Your task to perform on an android device: turn on the 24-hour format for clock Image 0: 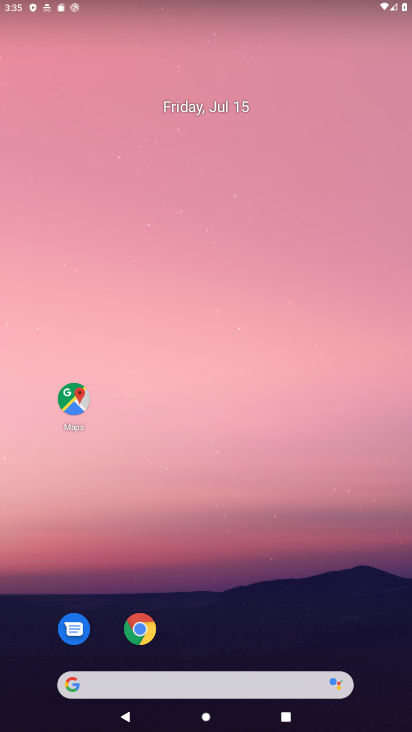
Step 0: drag from (238, 575) to (305, 213)
Your task to perform on an android device: turn on the 24-hour format for clock Image 1: 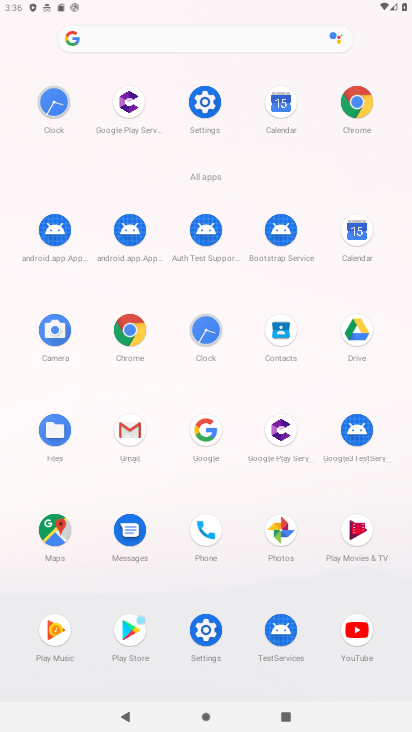
Step 1: click (208, 325)
Your task to perform on an android device: turn on the 24-hour format for clock Image 2: 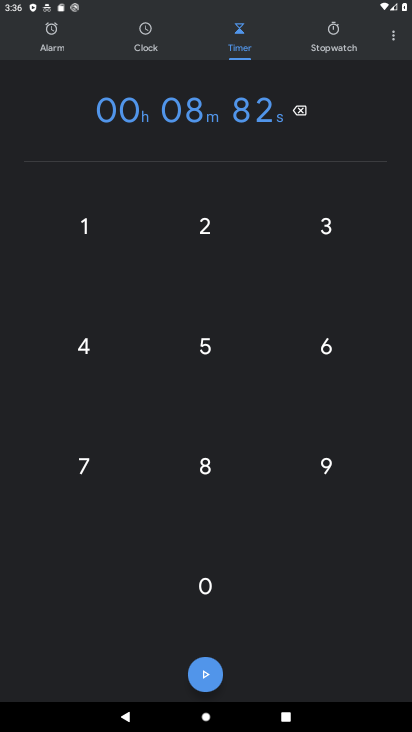
Step 2: click (393, 29)
Your task to perform on an android device: turn on the 24-hour format for clock Image 3: 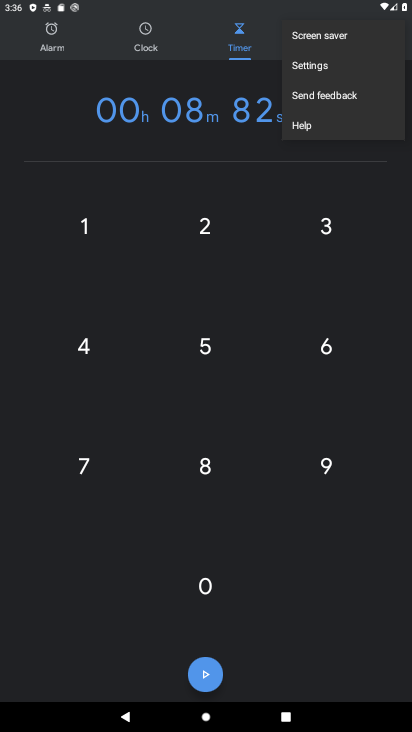
Step 3: click (325, 70)
Your task to perform on an android device: turn on the 24-hour format for clock Image 4: 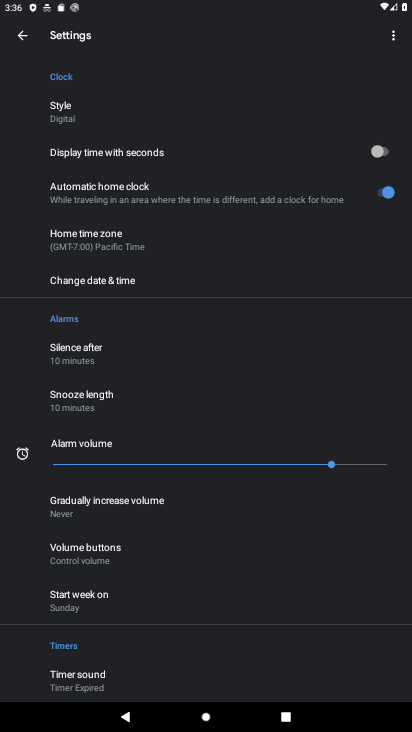
Step 4: click (121, 283)
Your task to perform on an android device: turn on the 24-hour format for clock Image 5: 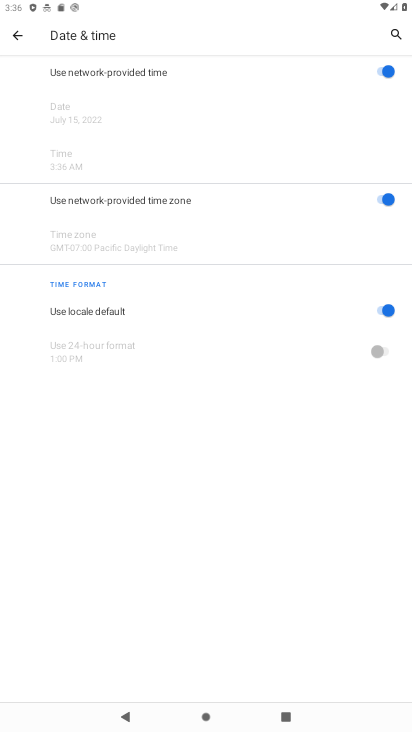
Step 5: click (203, 288)
Your task to perform on an android device: turn on the 24-hour format for clock Image 6: 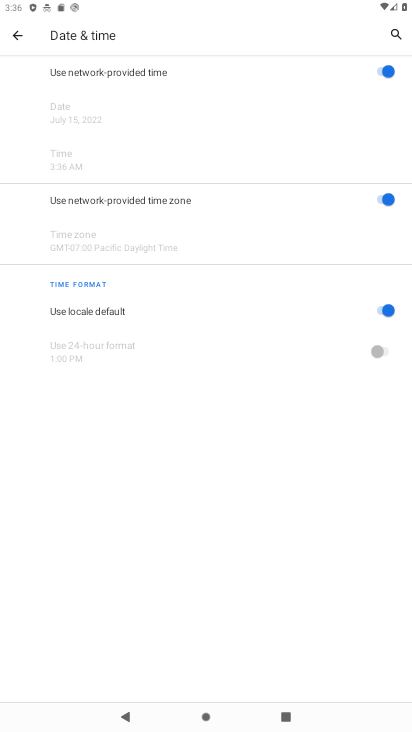
Step 6: click (341, 361)
Your task to perform on an android device: turn on the 24-hour format for clock Image 7: 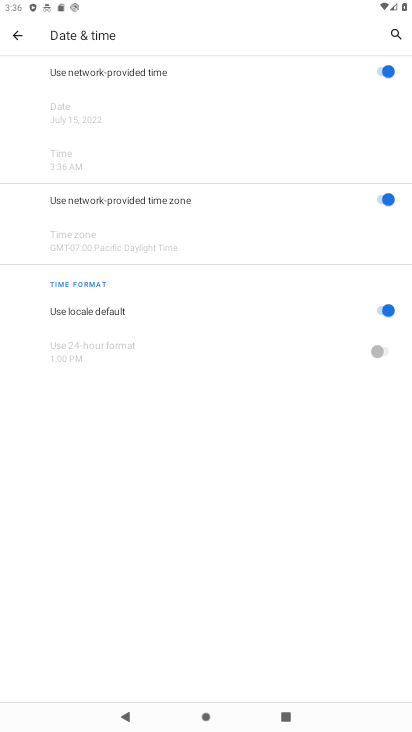
Step 7: click (383, 341)
Your task to perform on an android device: turn on the 24-hour format for clock Image 8: 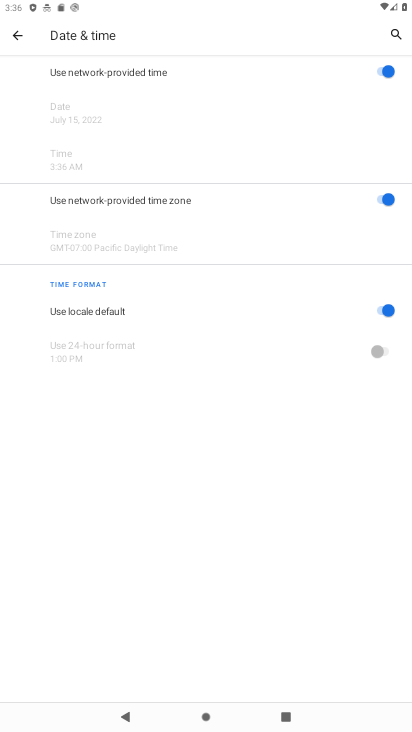
Step 8: click (392, 296)
Your task to perform on an android device: turn on the 24-hour format for clock Image 9: 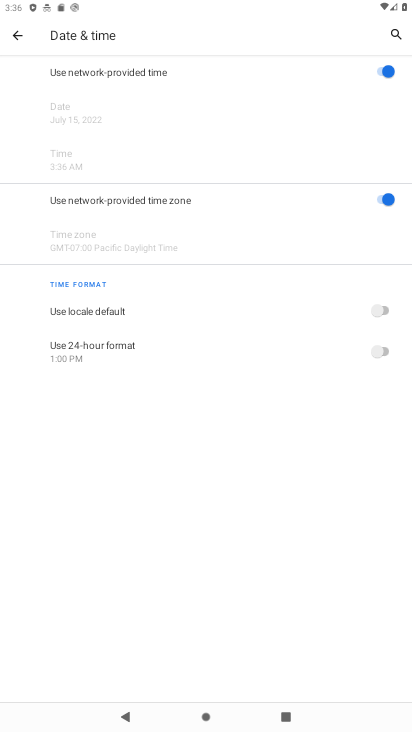
Step 9: click (369, 351)
Your task to perform on an android device: turn on the 24-hour format for clock Image 10: 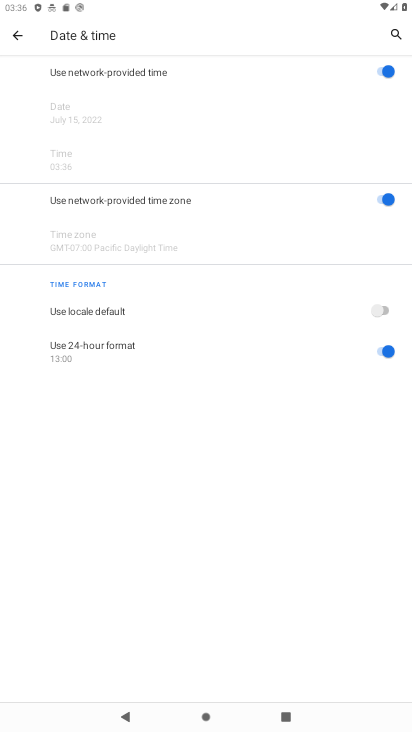
Step 10: task complete